Your task to perform on an android device: Check the latest toasters on Target. Image 0: 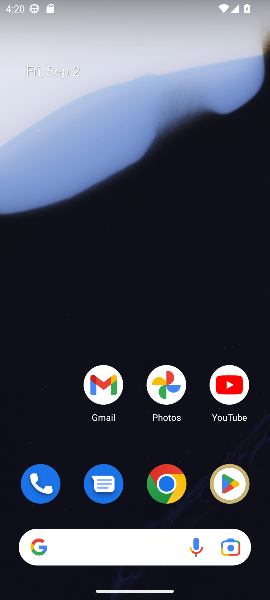
Step 0: click (162, 485)
Your task to perform on an android device: Check the latest toasters on Target. Image 1: 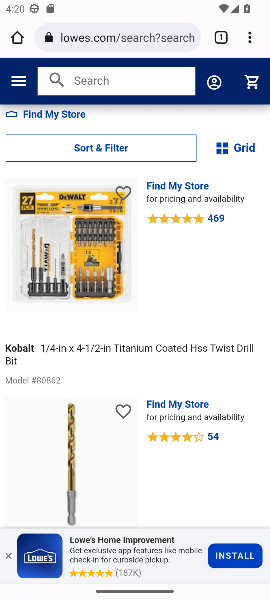
Step 1: click (176, 36)
Your task to perform on an android device: Check the latest toasters on Target. Image 2: 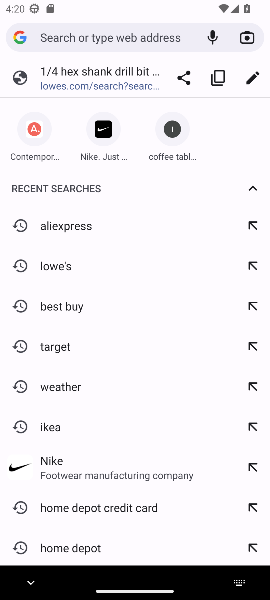
Step 2: type "Target"
Your task to perform on an android device: Check the latest toasters on Target. Image 3: 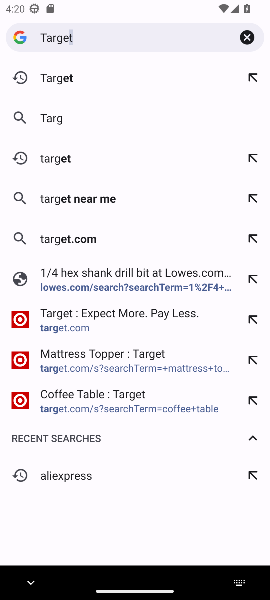
Step 3: press enter
Your task to perform on an android device: Check the latest toasters on Target. Image 4: 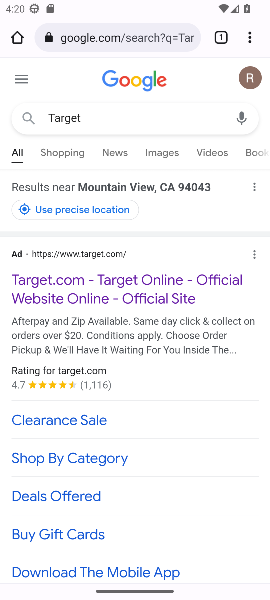
Step 4: click (96, 281)
Your task to perform on an android device: Check the latest toasters on Target. Image 5: 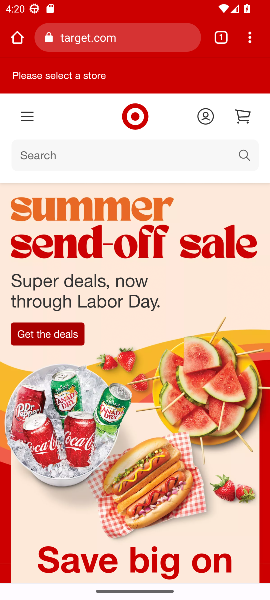
Step 5: click (244, 152)
Your task to perform on an android device: Check the latest toasters on Target. Image 6: 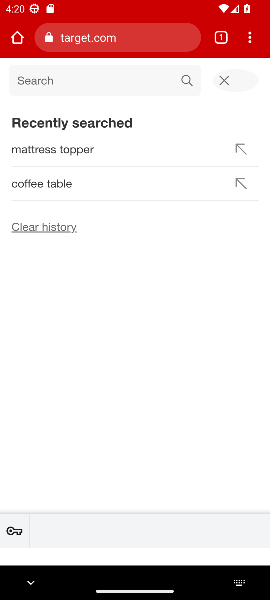
Step 6: click (99, 75)
Your task to perform on an android device: Check the latest toasters on Target. Image 7: 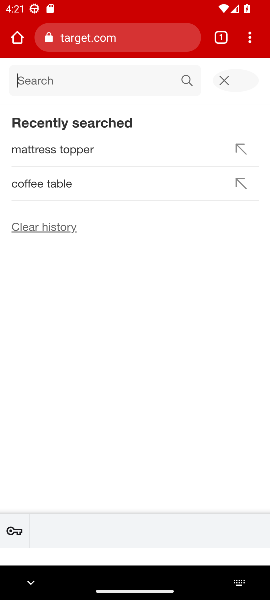
Step 7: type " toasters"
Your task to perform on an android device: Check the latest toasters on Target. Image 8: 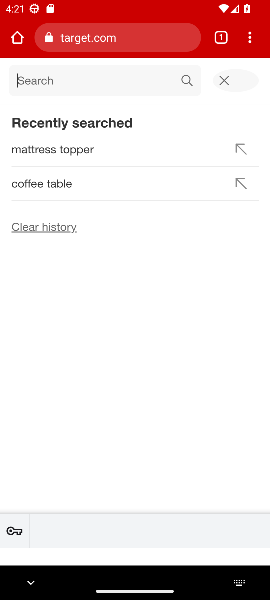
Step 8: press enter
Your task to perform on an android device: Check the latest toasters on Target. Image 9: 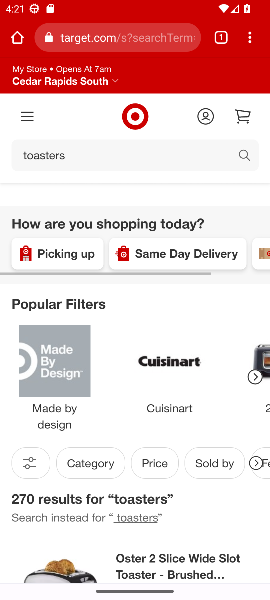
Step 9: task complete